Your task to perform on an android device: What's on my calendar tomorrow? Image 0: 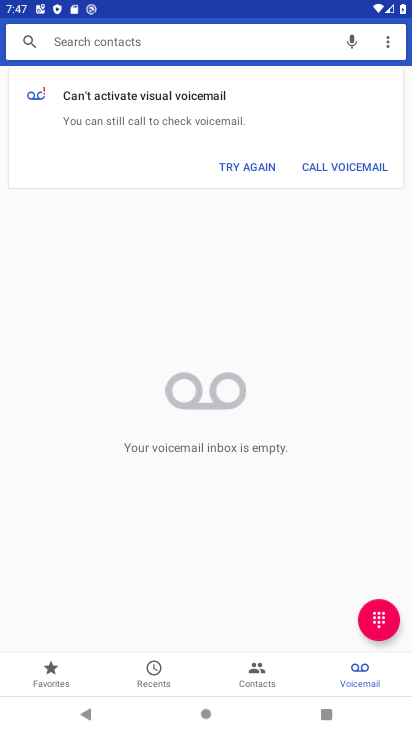
Step 0: press home button
Your task to perform on an android device: What's on my calendar tomorrow? Image 1: 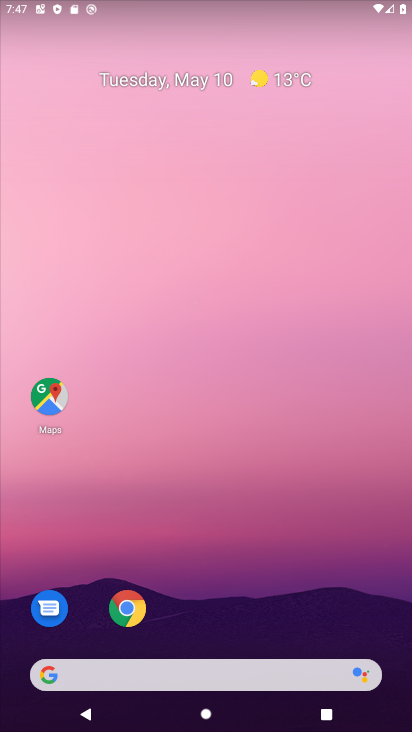
Step 1: drag from (232, 613) to (264, 109)
Your task to perform on an android device: What's on my calendar tomorrow? Image 2: 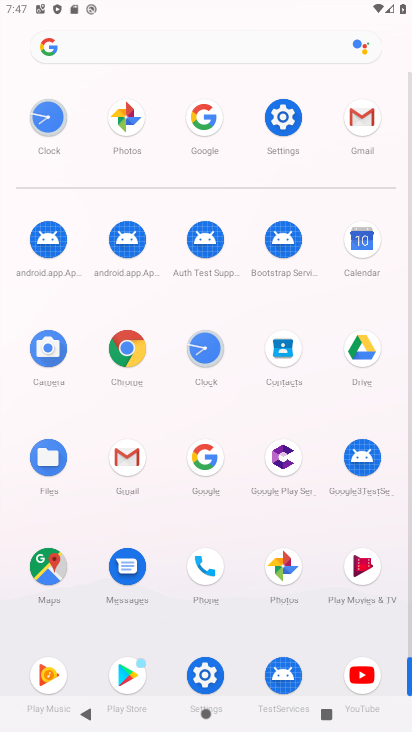
Step 2: click (286, 373)
Your task to perform on an android device: What's on my calendar tomorrow? Image 3: 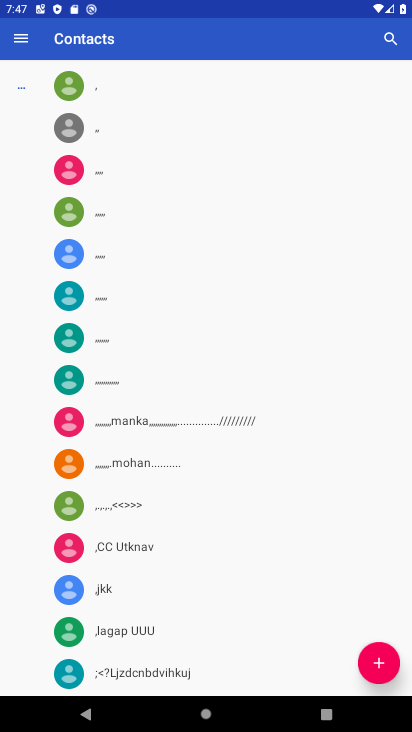
Step 3: press home button
Your task to perform on an android device: What's on my calendar tomorrow? Image 4: 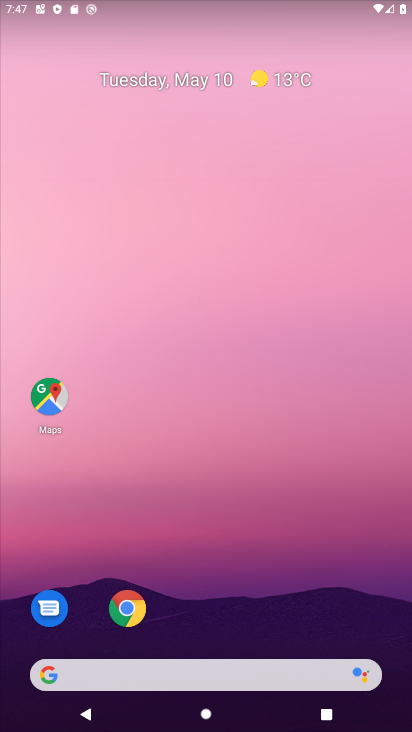
Step 4: drag from (297, 609) to (252, 44)
Your task to perform on an android device: What's on my calendar tomorrow? Image 5: 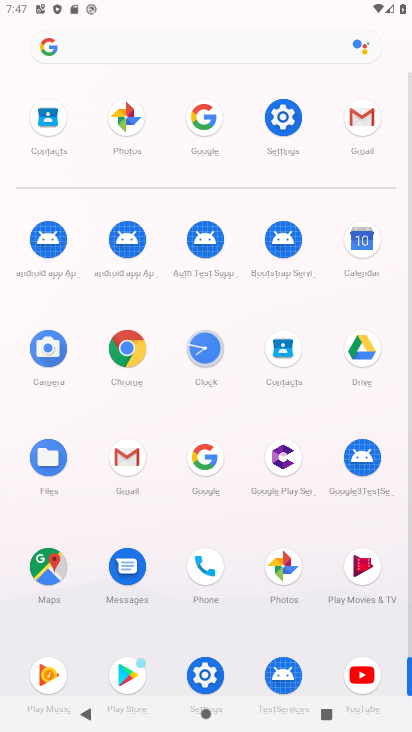
Step 5: click (365, 248)
Your task to perform on an android device: What's on my calendar tomorrow? Image 6: 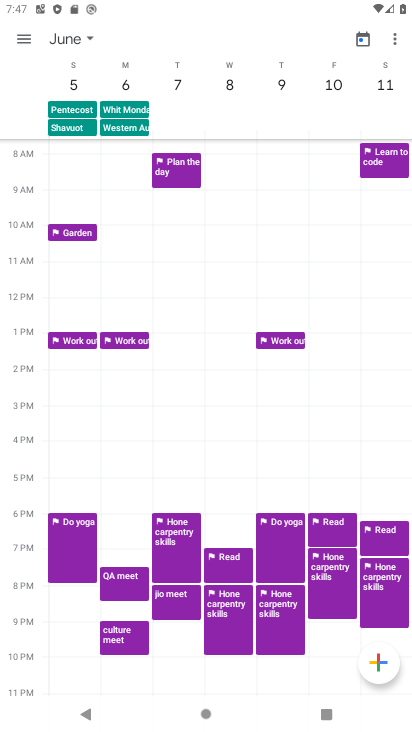
Step 6: click (16, 36)
Your task to perform on an android device: What's on my calendar tomorrow? Image 7: 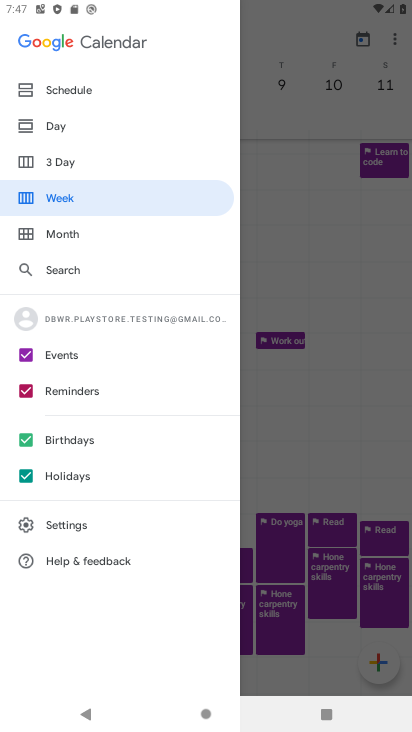
Step 7: click (53, 124)
Your task to perform on an android device: What's on my calendar tomorrow? Image 8: 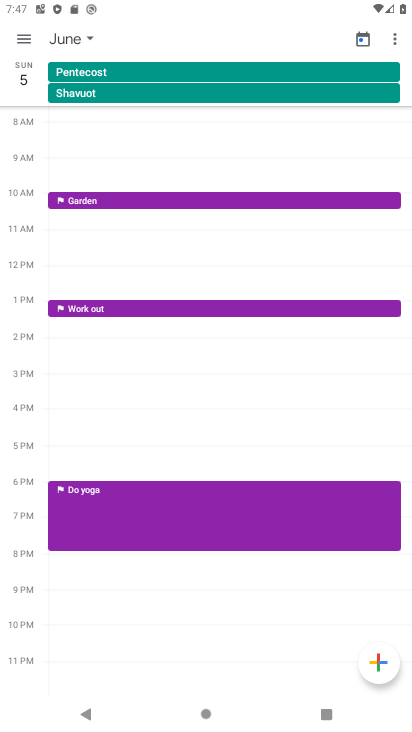
Step 8: click (87, 38)
Your task to perform on an android device: What's on my calendar tomorrow? Image 9: 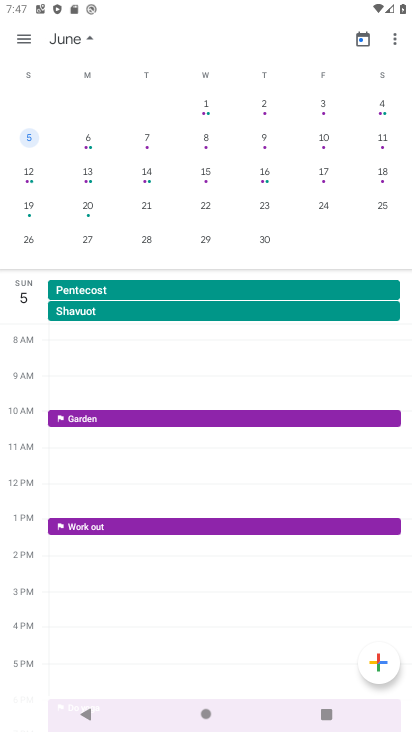
Step 9: drag from (70, 167) to (328, 174)
Your task to perform on an android device: What's on my calendar tomorrow? Image 10: 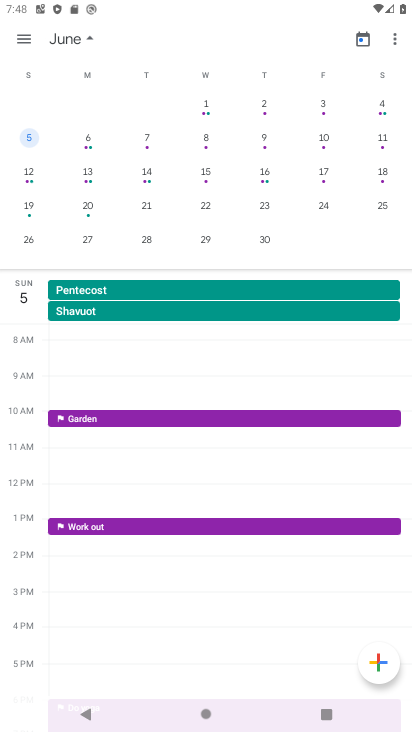
Step 10: drag from (71, 159) to (404, 159)
Your task to perform on an android device: What's on my calendar tomorrow? Image 11: 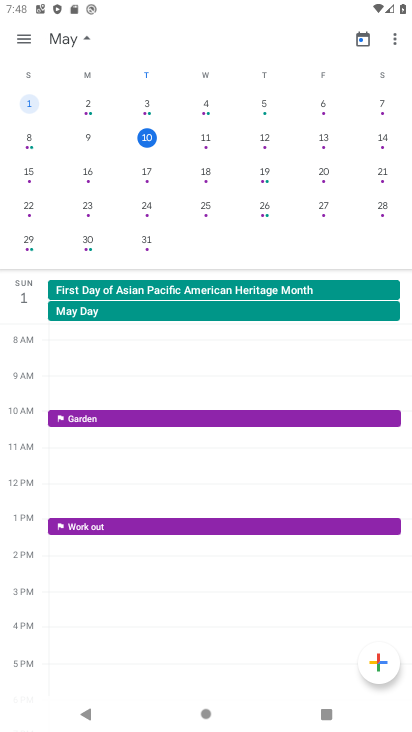
Step 11: click (205, 142)
Your task to perform on an android device: What's on my calendar tomorrow? Image 12: 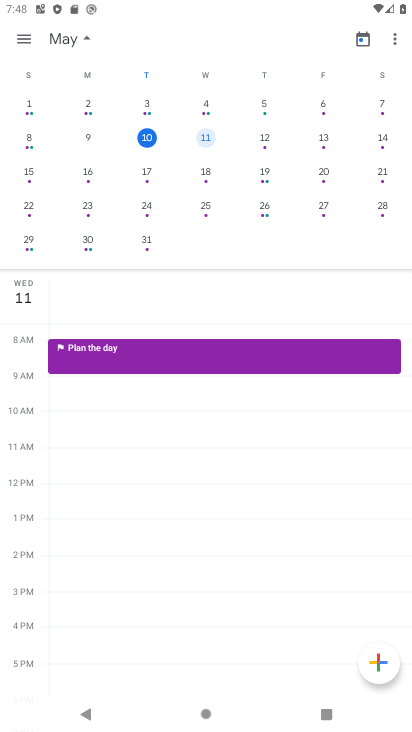
Step 12: task complete